Your task to perform on an android device: Search for Mexican restaurants on Maps Image 0: 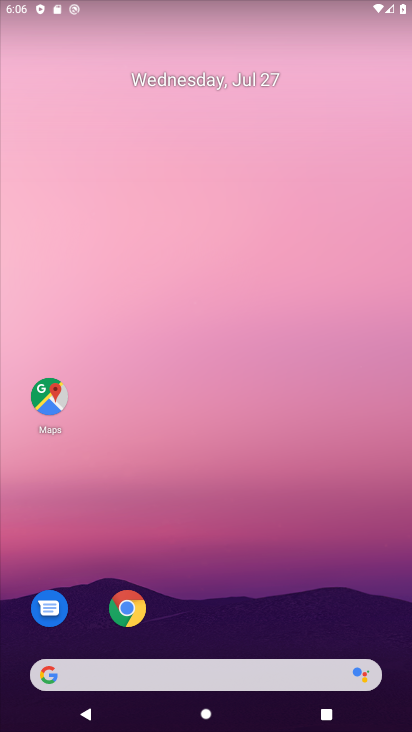
Step 0: click (47, 391)
Your task to perform on an android device: Search for Mexican restaurants on Maps Image 1: 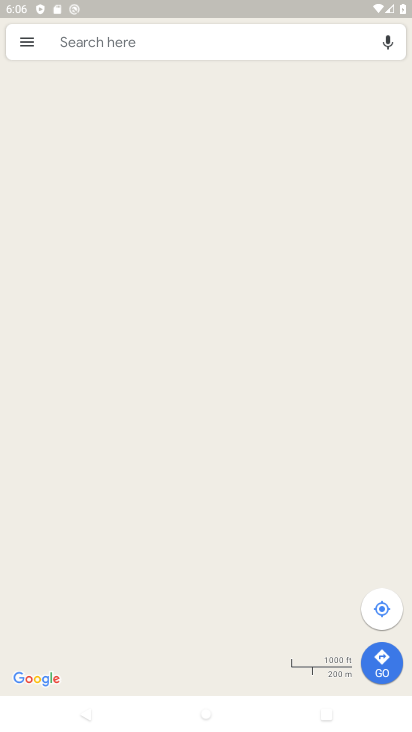
Step 1: click (138, 35)
Your task to perform on an android device: Search for Mexican restaurants on Maps Image 2: 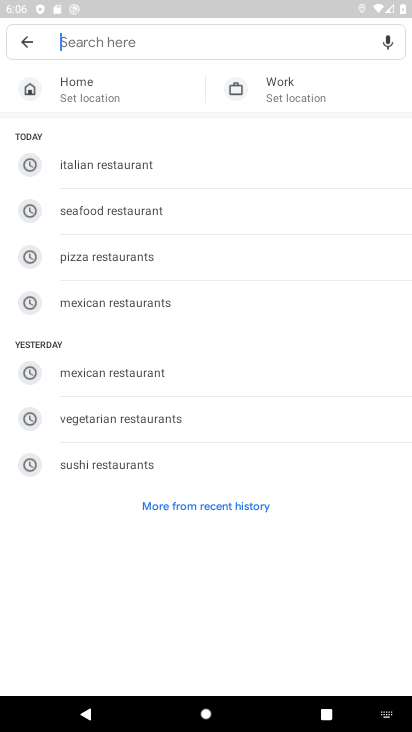
Step 2: click (113, 303)
Your task to perform on an android device: Search for Mexican restaurants on Maps Image 3: 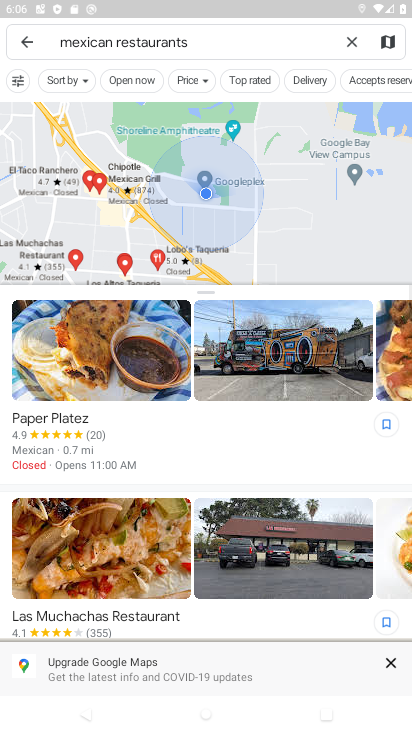
Step 3: task complete